Your task to perform on an android device: turn off improve location accuracy Image 0: 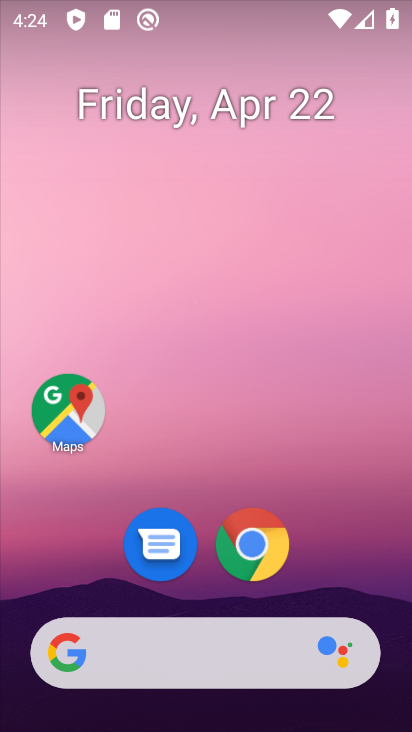
Step 0: drag from (186, 620) to (186, 271)
Your task to perform on an android device: turn off improve location accuracy Image 1: 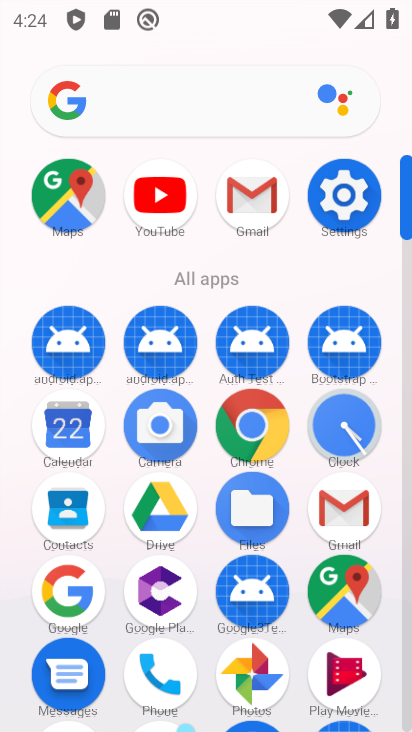
Step 1: click (350, 200)
Your task to perform on an android device: turn off improve location accuracy Image 2: 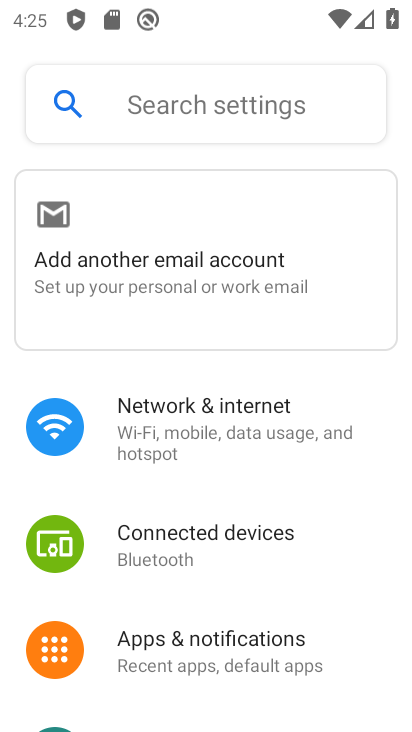
Step 2: drag from (211, 689) to (191, 359)
Your task to perform on an android device: turn off improve location accuracy Image 3: 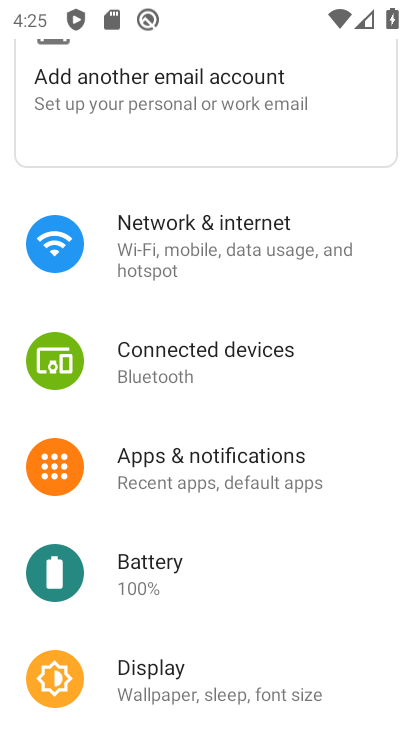
Step 3: drag from (197, 681) to (177, 364)
Your task to perform on an android device: turn off improve location accuracy Image 4: 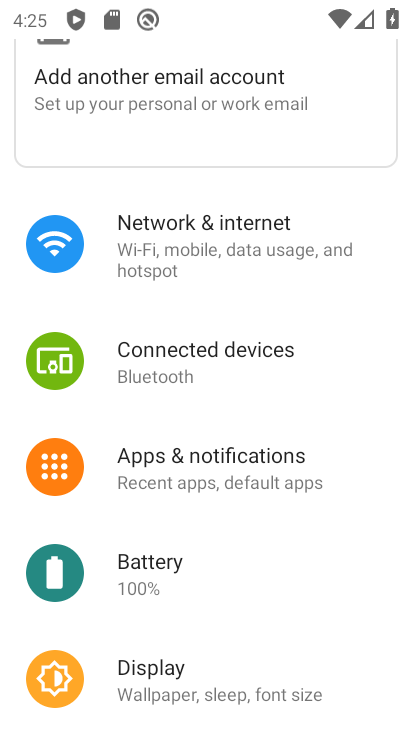
Step 4: drag from (206, 648) to (201, 339)
Your task to perform on an android device: turn off improve location accuracy Image 5: 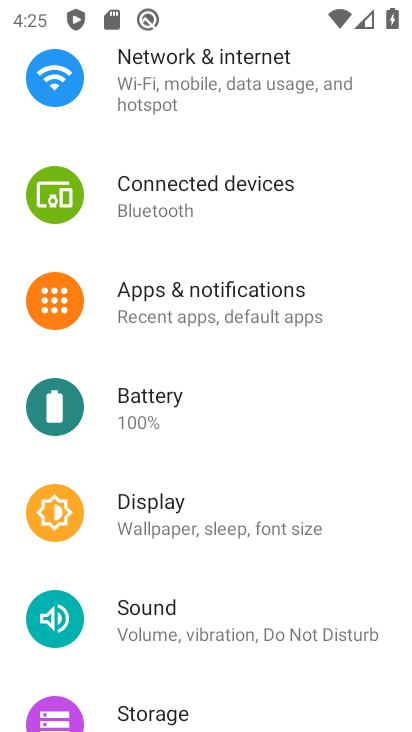
Step 5: drag from (200, 649) to (200, 323)
Your task to perform on an android device: turn off improve location accuracy Image 6: 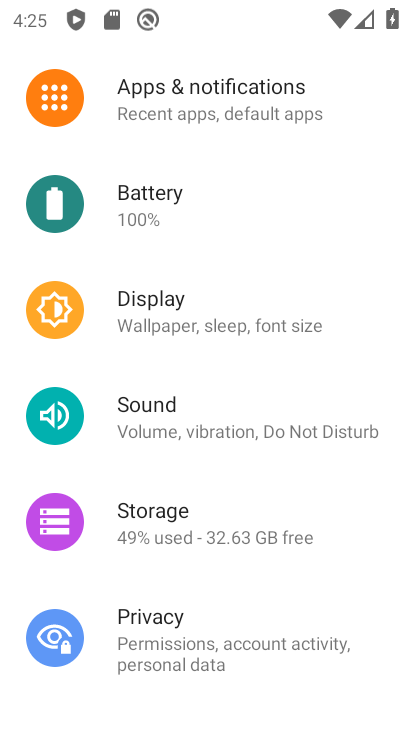
Step 6: drag from (210, 671) to (218, 336)
Your task to perform on an android device: turn off improve location accuracy Image 7: 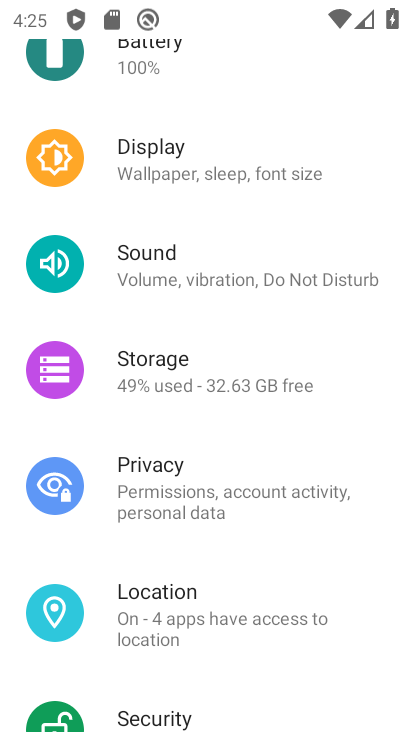
Step 7: click (210, 613)
Your task to perform on an android device: turn off improve location accuracy Image 8: 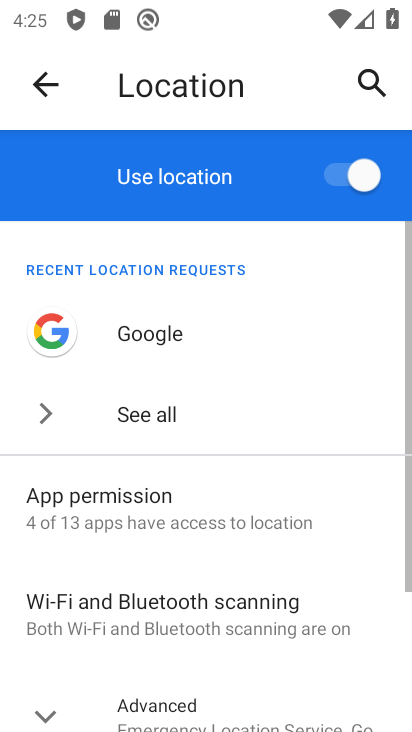
Step 8: click (167, 712)
Your task to perform on an android device: turn off improve location accuracy Image 9: 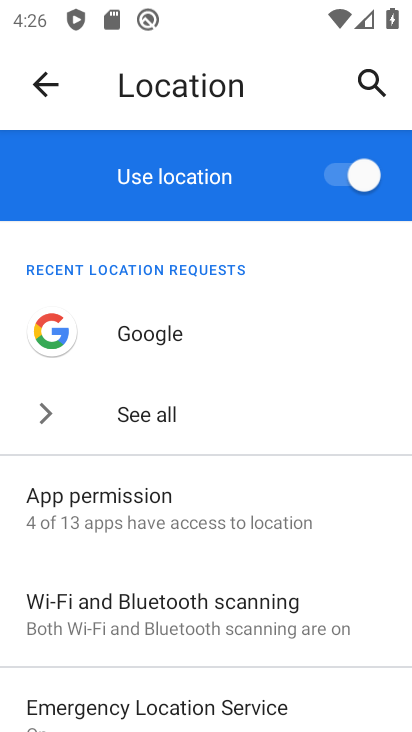
Step 9: drag from (247, 720) to (263, 433)
Your task to perform on an android device: turn off improve location accuracy Image 10: 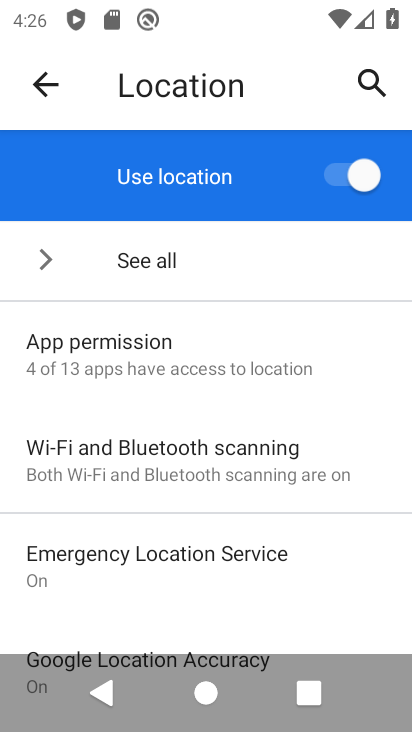
Step 10: drag from (217, 601) to (217, 249)
Your task to perform on an android device: turn off improve location accuracy Image 11: 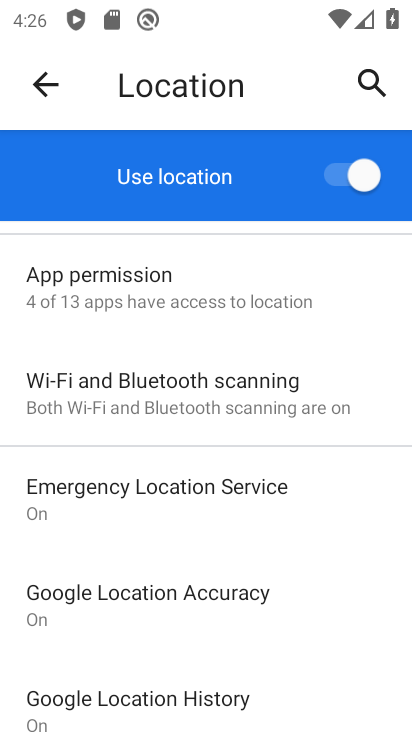
Step 11: click (152, 592)
Your task to perform on an android device: turn off improve location accuracy Image 12: 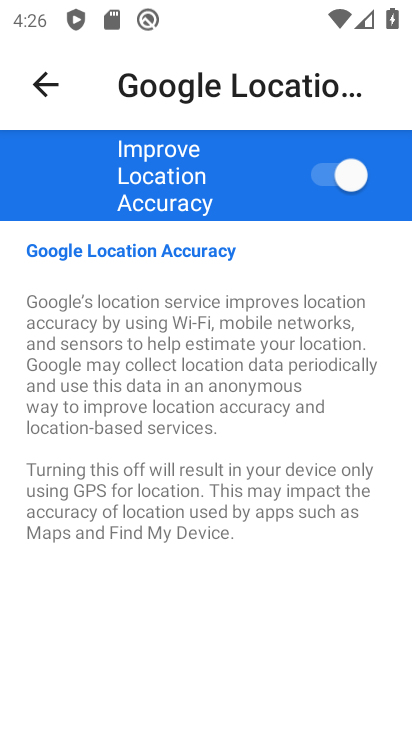
Step 12: click (324, 181)
Your task to perform on an android device: turn off improve location accuracy Image 13: 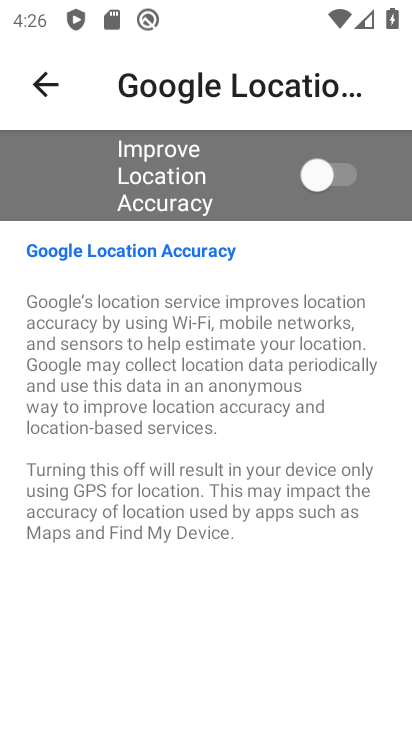
Step 13: task complete